Your task to perform on an android device: Open Yahoo.com Image 0: 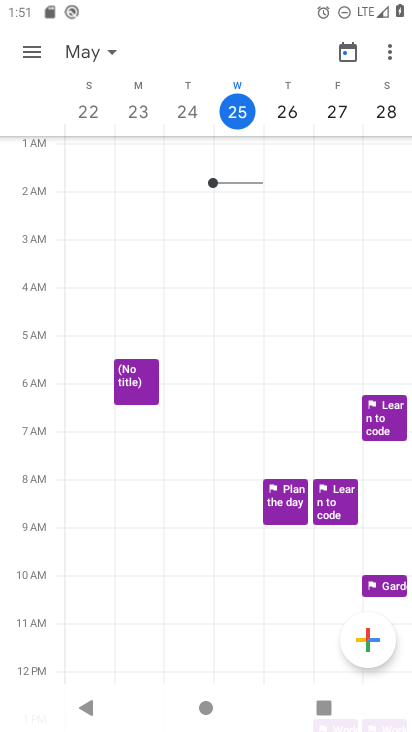
Step 0: press home button
Your task to perform on an android device: Open Yahoo.com Image 1: 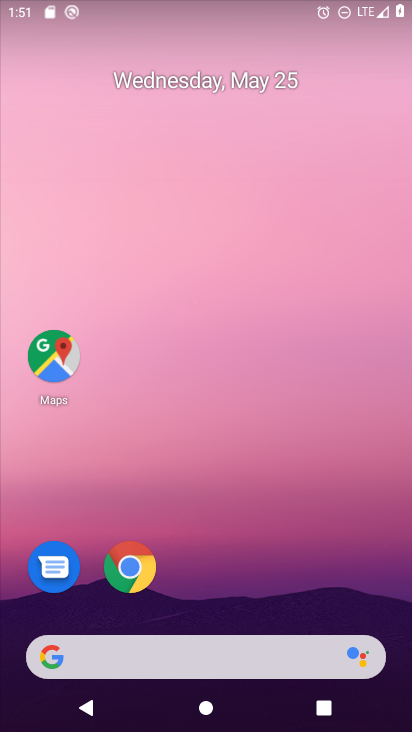
Step 1: click (139, 563)
Your task to perform on an android device: Open Yahoo.com Image 2: 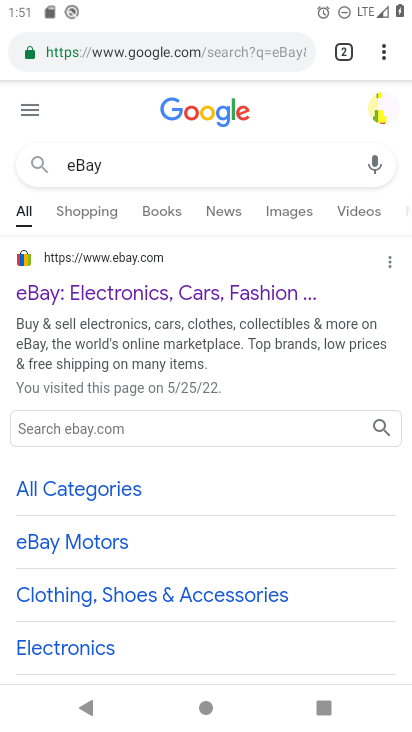
Step 2: click (309, 46)
Your task to perform on an android device: Open Yahoo.com Image 3: 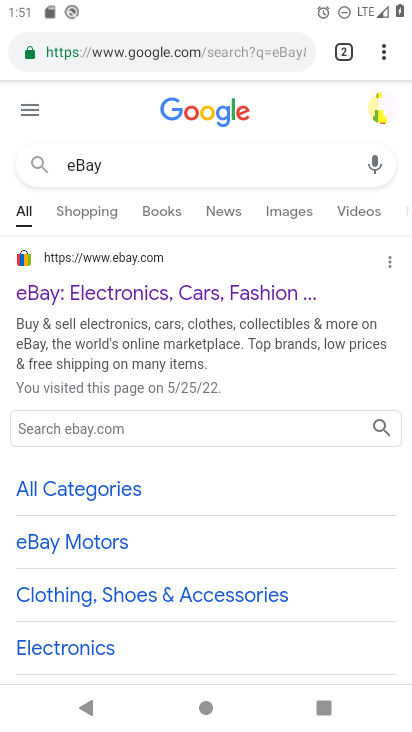
Step 3: click (308, 46)
Your task to perform on an android device: Open Yahoo.com Image 4: 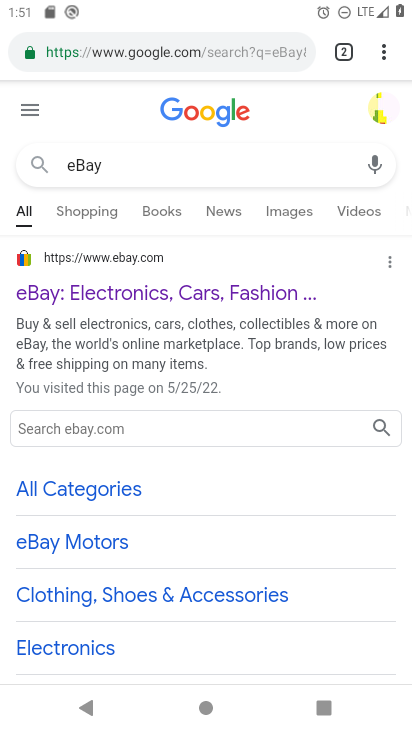
Step 4: click (304, 52)
Your task to perform on an android device: Open Yahoo.com Image 5: 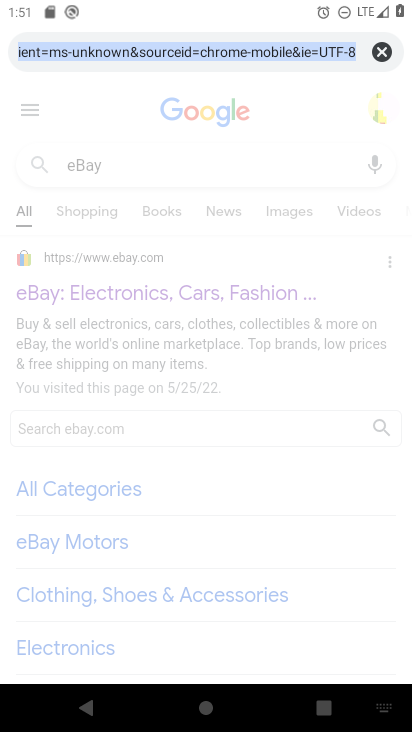
Step 5: click (374, 53)
Your task to perform on an android device: Open Yahoo.com Image 6: 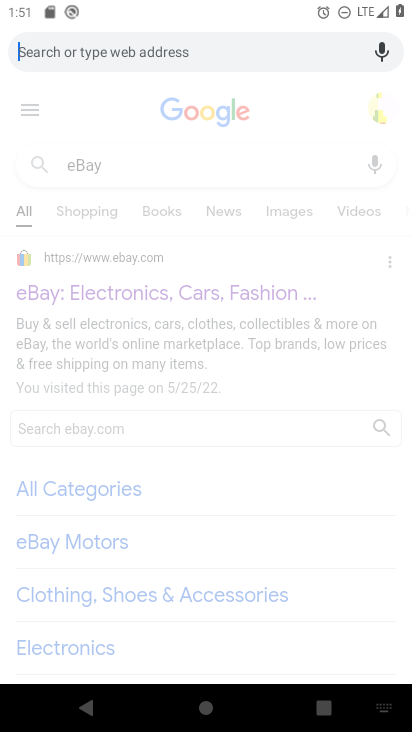
Step 6: type "Yahoo.com"
Your task to perform on an android device: Open Yahoo.com Image 7: 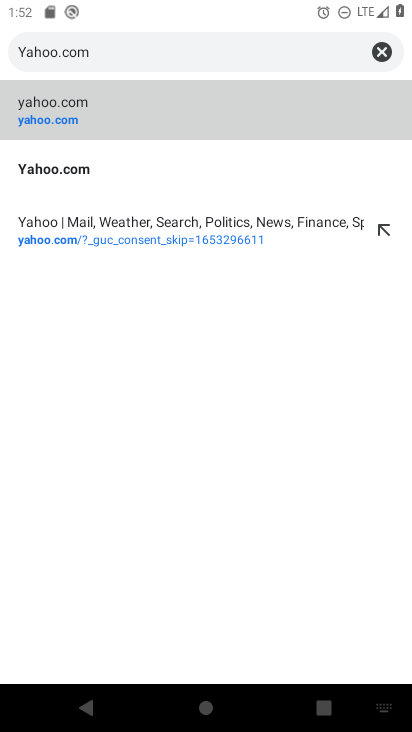
Step 7: click (81, 171)
Your task to perform on an android device: Open Yahoo.com Image 8: 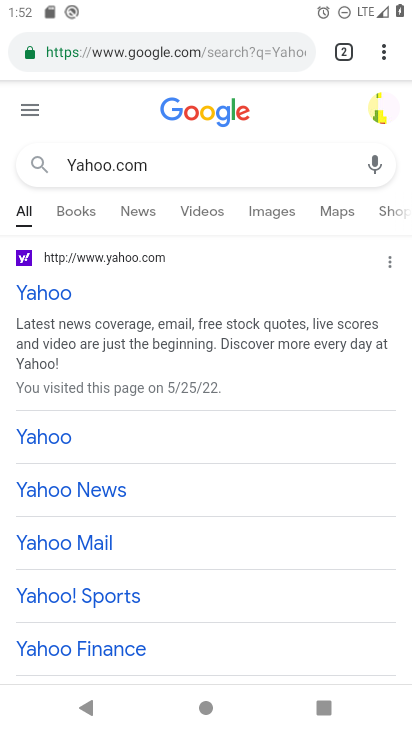
Step 8: task complete